Your task to perform on an android device: What is the news today? Image 0: 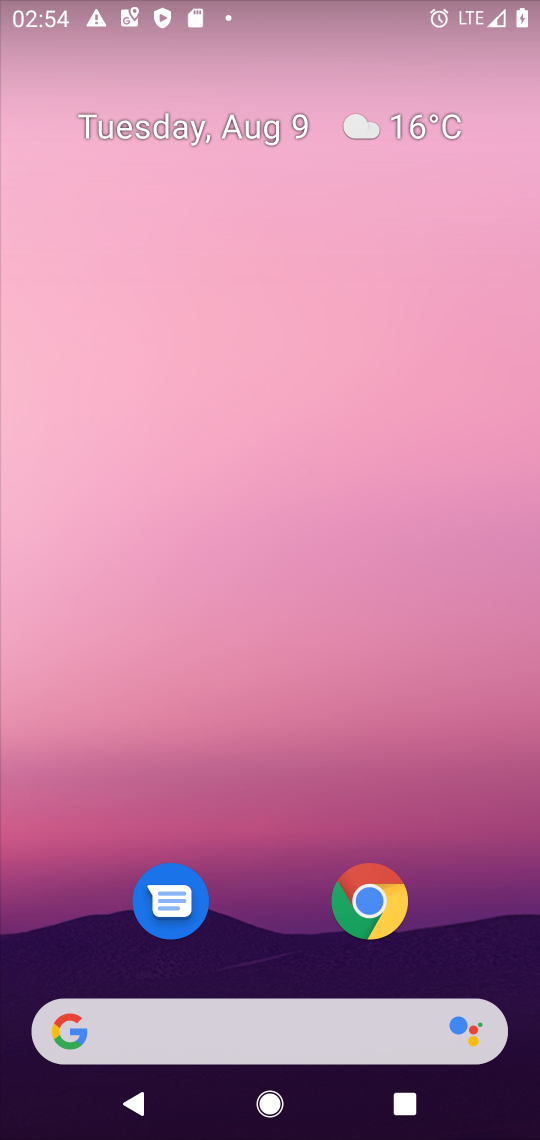
Step 0: drag from (7, 521) to (413, 536)
Your task to perform on an android device: What is the news today? Image 1: 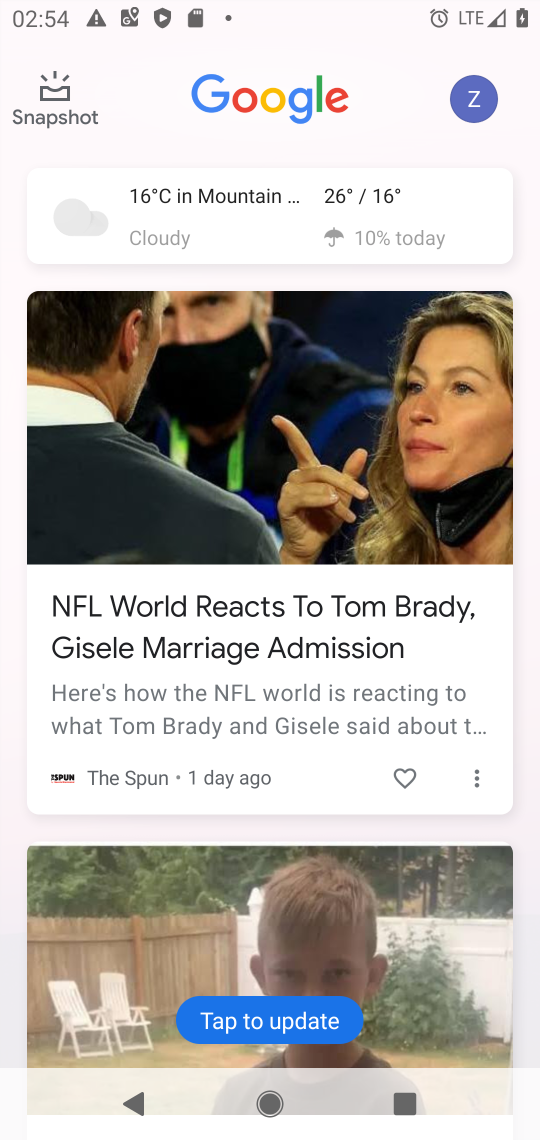
Step 1: task complete